Your task to perform on an android device: turn on the 12-hour format for clock Image 0: 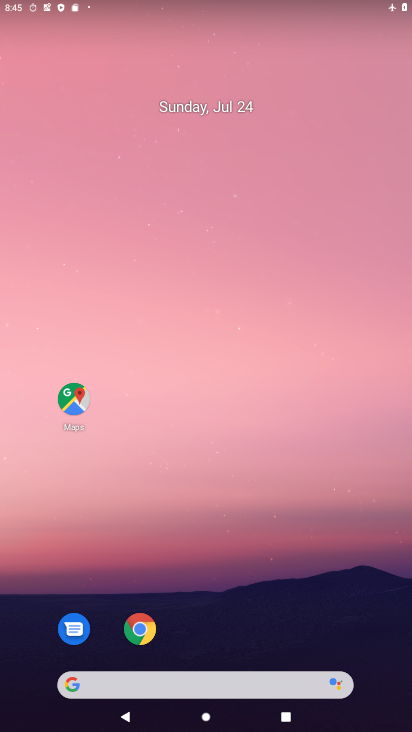
Step 0: drag from (174, 686) to (292, 140)
Your task to perform on an android device: turn on the 12-hour format for clock Image 1: 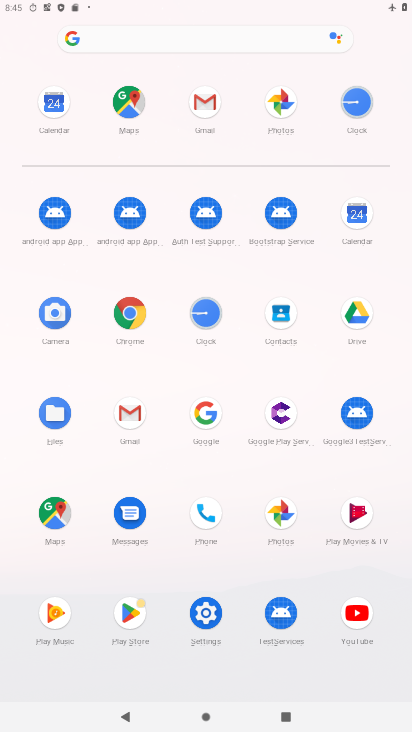
Step 1: click (219, 310)
Your task to perform on an android device: turn on the 12-hour format for clock Image 2: 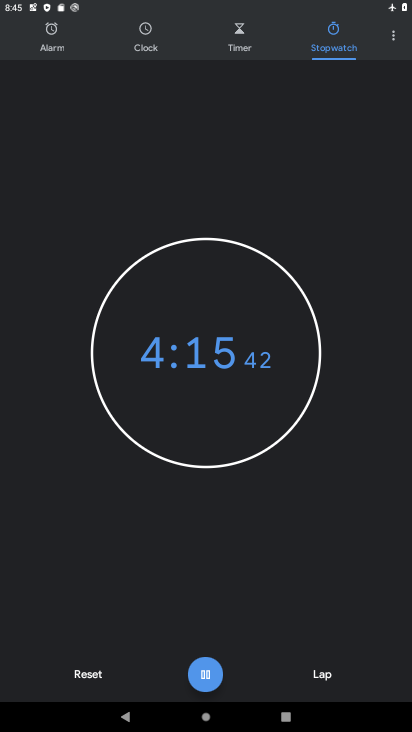
Step 2: click (386, 34)
Your task to perform on an android device: turn on the 12-hour format for clock Image 3: 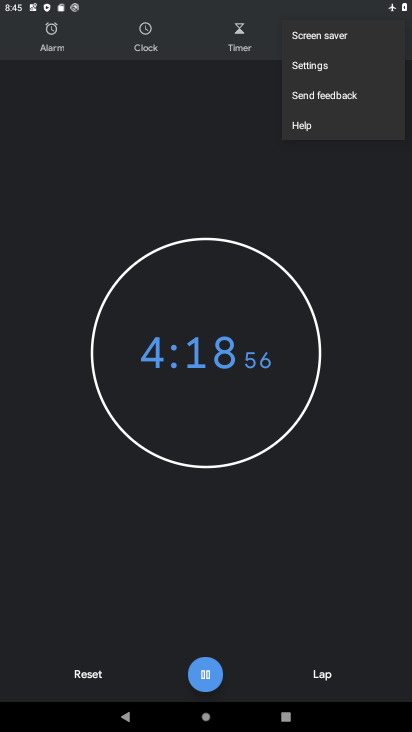
Step 3: click (318, 71)
Your task to perform on an android device: turn on the 12-hour format for clock Image 4: 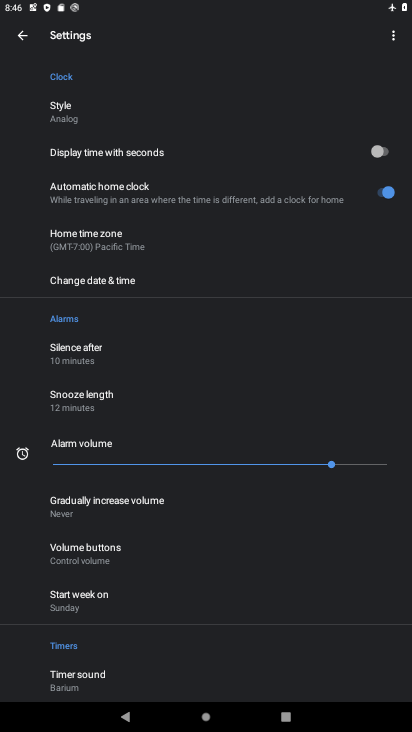
Step 4: click (129, 281)
Your task to perform on an android device: turn on the 12-hour format for clock Image 5: 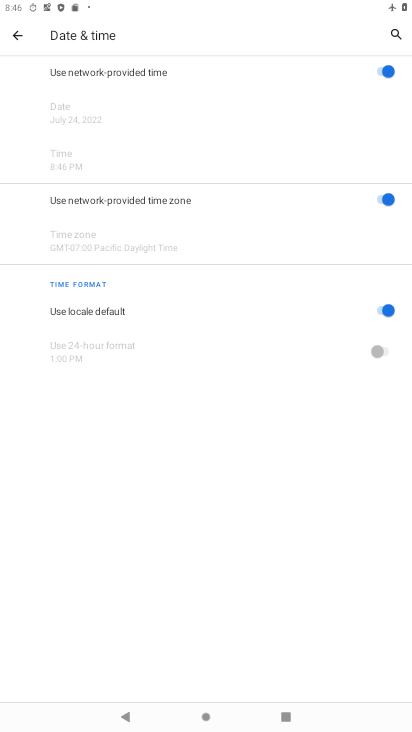
Step 5: task complete